Your task to perform on an android device: What's the weather going to be tomorrow? Image 0: 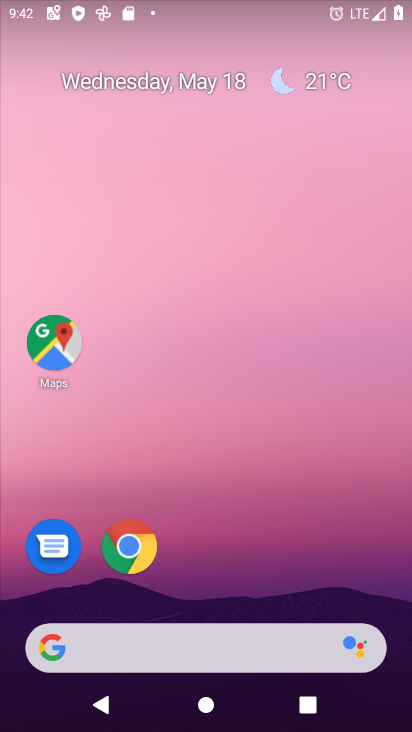
Step 0: drag from (383, 602) to (283, 76)
Your task to perform on an android device: What's the weather going to be tomorrow? Image 1: 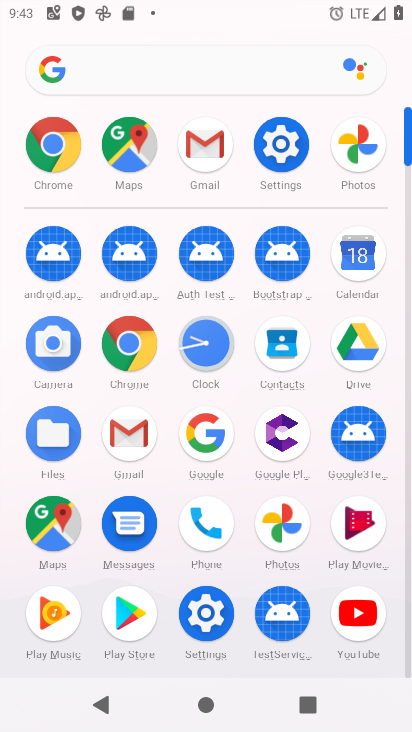
Step 1: click (206, 433)
Your task to perform on an android device: What's the weather going to be tomorrow? Image 2: 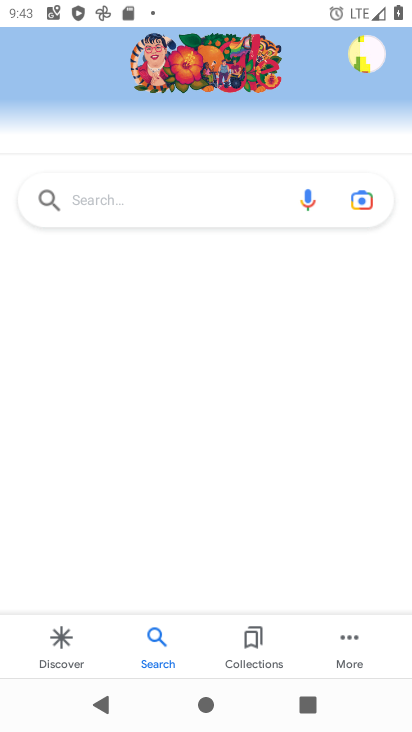
Step 2: click (184, 187)
Your task to perform on an android device: What's the weather going to be tomorrow? Image 3: 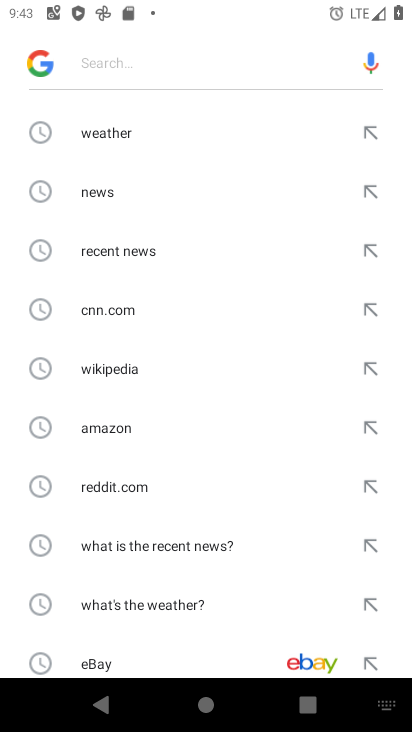
Step 3: drag from (191, 603) to (214, 188)
Your task to perform on an android device: What's the weather going to be tomorrow? Image 4: 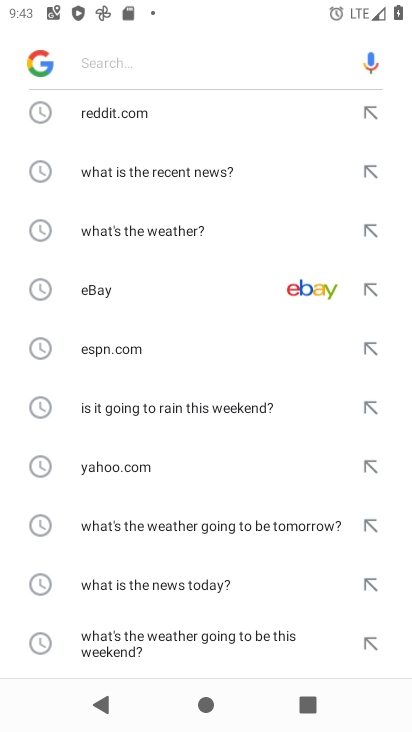
Step 4: click (256, 526)
Your task to perform on an android device: What's the weather going to be tomorrow? Image 5: 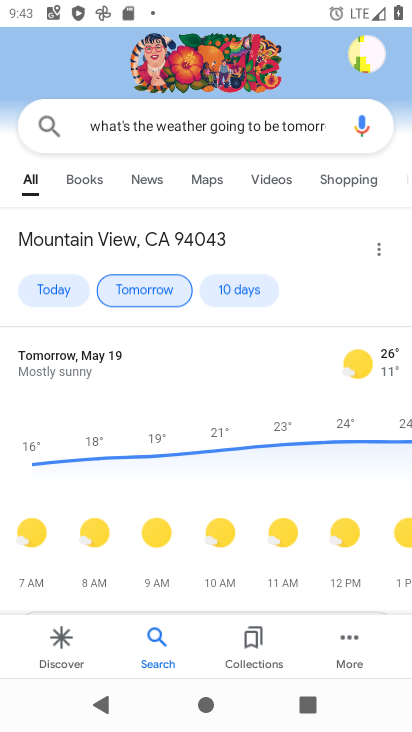
Step 5: task complete